Your task to perform on an android device: turn off data saver in the chrome app Image 0: 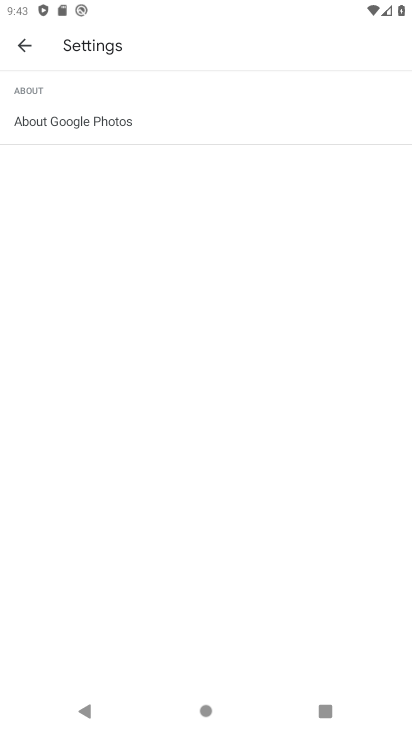
Step 0: click (19, 38)
Your task to perform on an android device: turn off data saver in the chrome app Image 1: 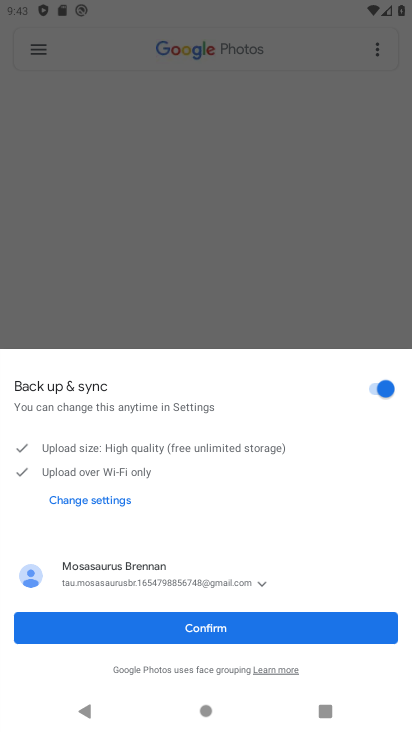
Step 1: click (238, 626)
Your task to perform on an android device: turn off data saver in the chrome app Image 2: 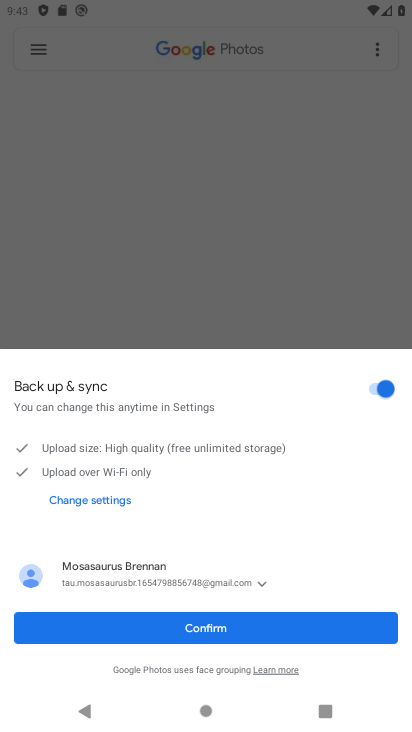
Step 2: click (238, 625)
Your task to perform on an android device: turn off data saver in the chrome app Image 3: 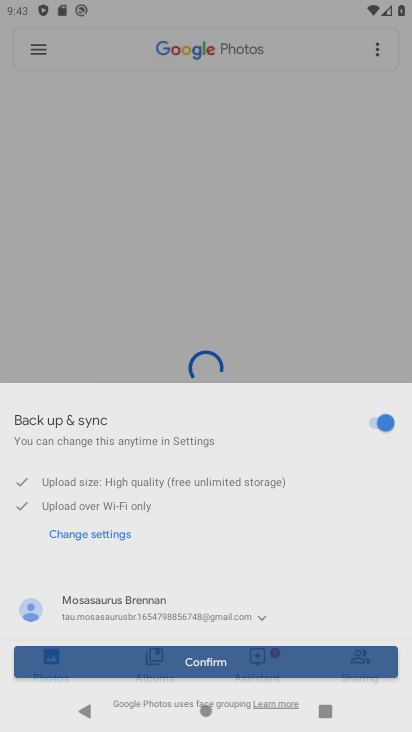
Step 3: click (238, 625)
Your task to perform on an android device: turn off data saver in the chrome app Image 4: 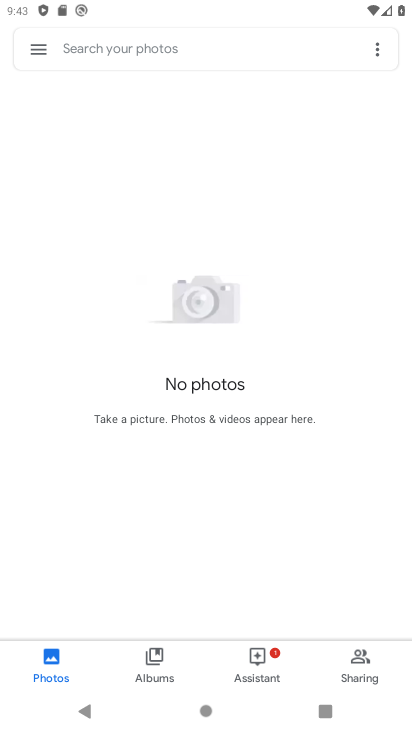
Step 4: press back button
Your task to perform on an android device: turn off data saver in the chrome app Image 5: 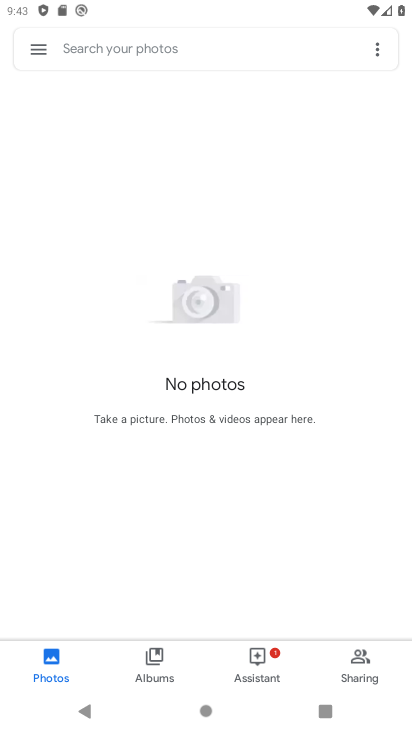
Step 5: press back button
Your task to perform on an android device: turn off data saver in the chrome app Image 6: 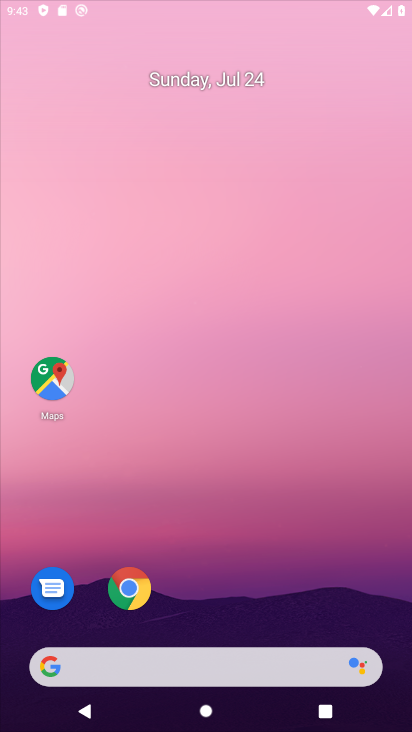
Step 6: press back button
Your task to perform on an android device: turn off data saver in the chrome app Image 7: 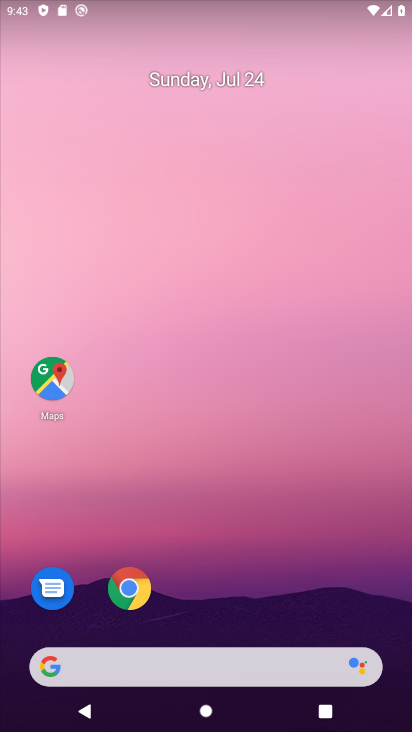
Step 7: drag from (205, 651) to (155, 50)
Your task to perform on an android device: turn off data saver in the chrome app Image 8: 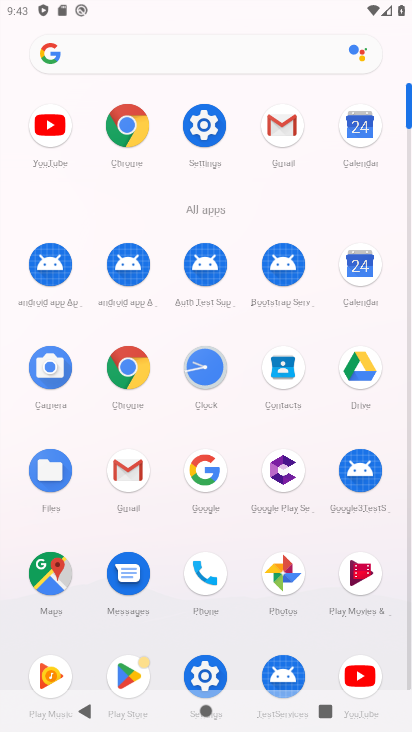
Step 8: click (143, 131)
Your task to perform on an android device: turn off data saver in the chrome app Image 9: 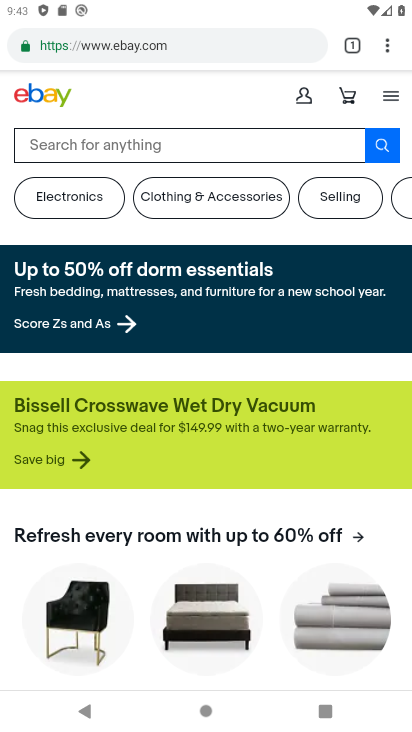
Step 9: drag from (389, 49) to (225, 548)
Your task to perform on an android device: turn off data saver in the chrome app Image 10: 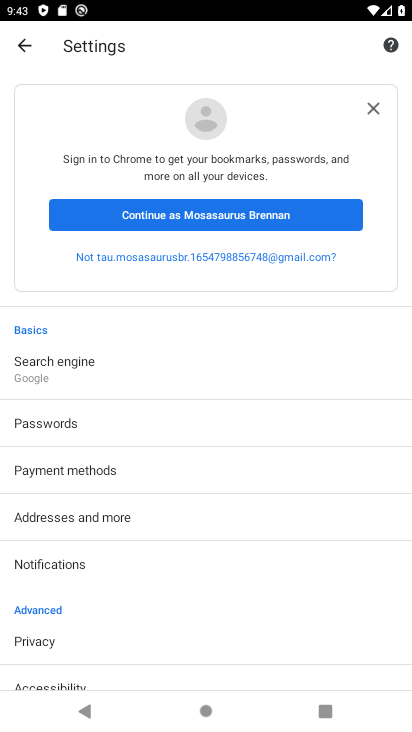
Step 10: drag from (107, 545) to (131, 194)
Your task to perform on an android device: turn off data saver in the chrome app Image 11: 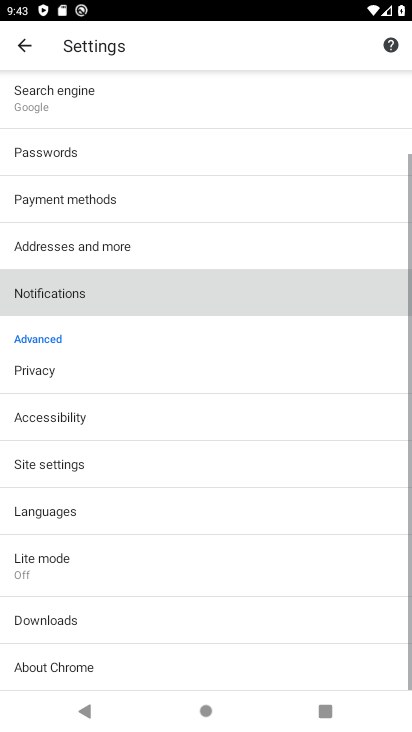
Step 11: drag from (119, 565) to (137, 328)
Your task to perform on an android device: turn off data saver in the chrome app Image 12: 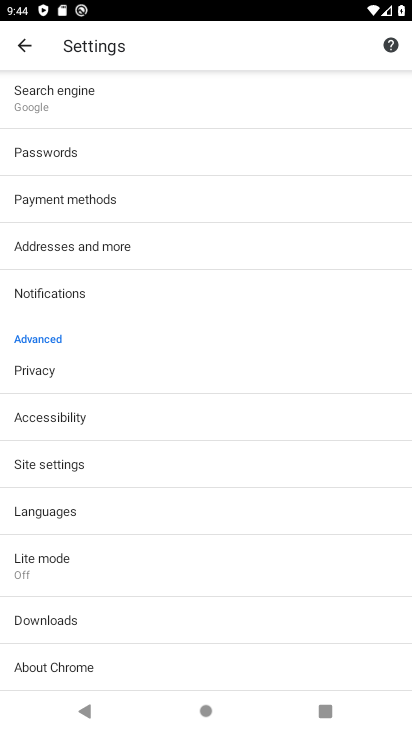
Step 12: click (39, 553)
Your task to perform on an android device: turn off data saver in the chrome app Image 13: 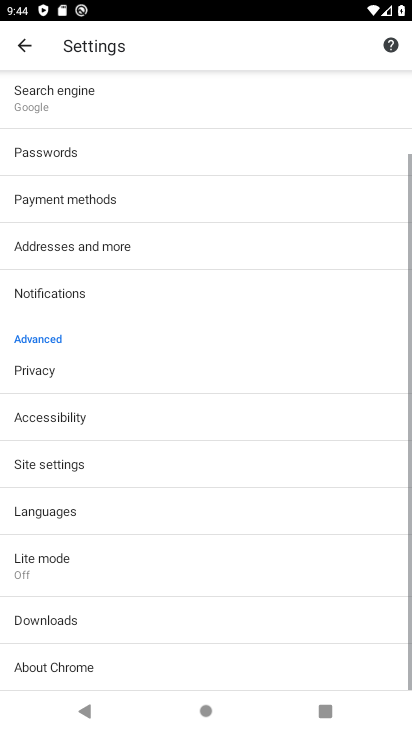
Step 13: click (39, 553)
Your task to perform on an android device: turn off data saver in the chrome app Image 14: 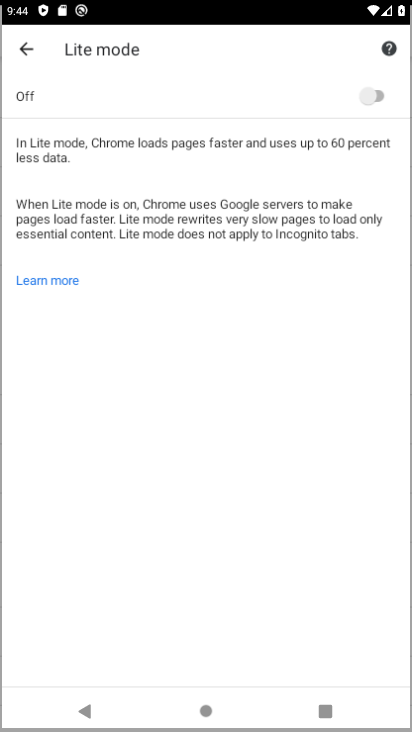
Step 14: click (45, 553)
Your task to perform on an android device: turn off data saver in the chrome app Image 15: 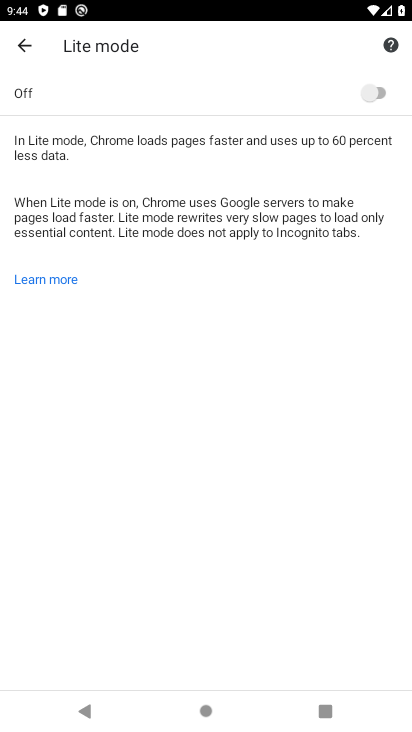
Step 15: task complete